Your task to perform on an android device: make emails show in primary in the gmail app Image 0: 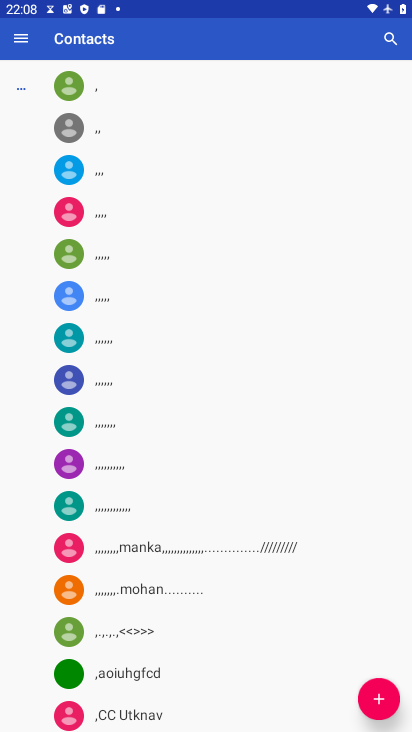
Step 0: press home button
Your task to perform on an android device: make emails show in primary in the gmail app Image 1: 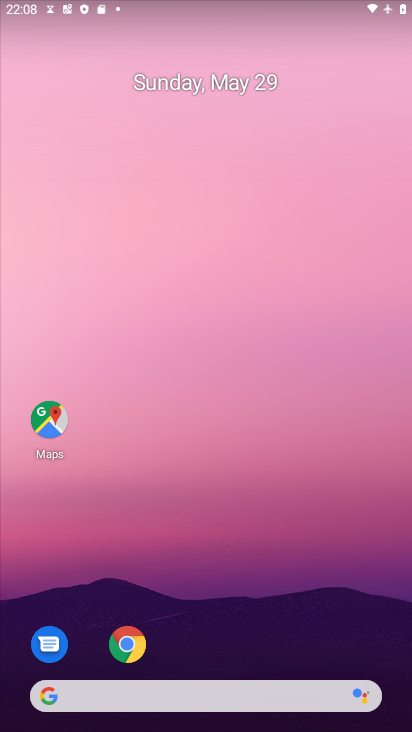
Step 1: drag from (253, 627) to (248, 130)
Your task to perform on an android device: make emails show in primary in the gmail app Image 2: 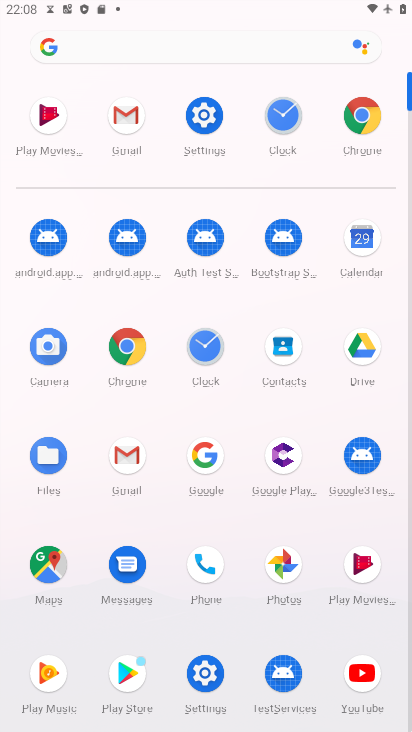
Step 2: click (139, 449)
Your task to perform on an android device: make emails show in primary in the gmail app Image 3: 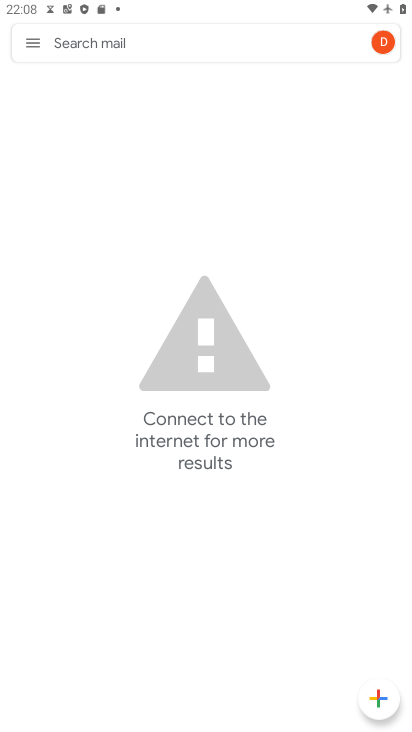
Step 3: click (31, 37)
Your task to perform on an android device: make emails show in primary in the gmail app Image 4: 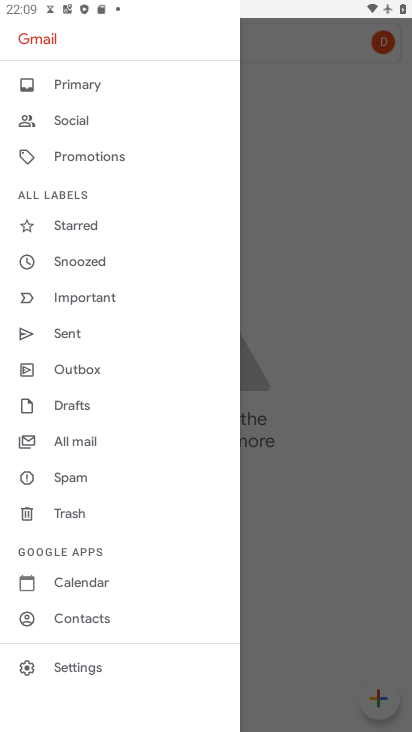
Step 4: click (110, 655)
Your task to perform on an android device: make emails show in primary in the gmail app Image 5: 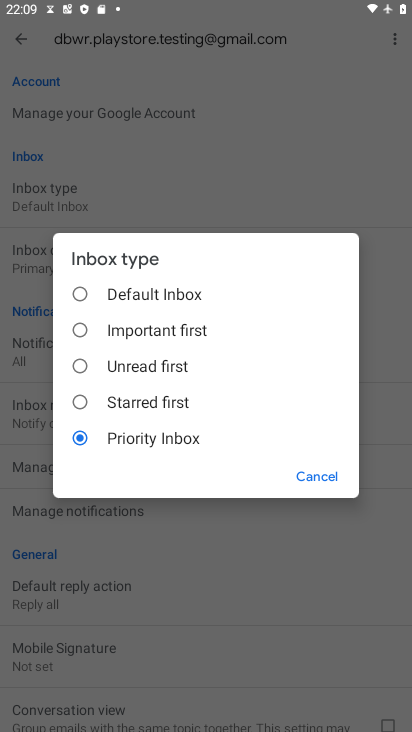
Step 5: click (307, 470)
Your task to perform on an android device: make emails show in primary in the gmail app Image 6: 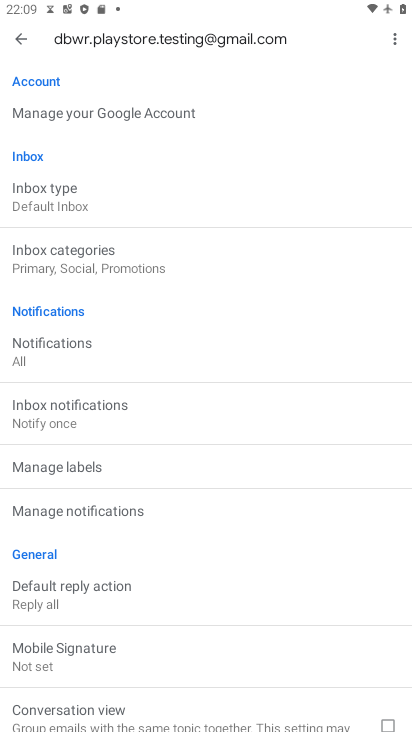
Step 6: task complete